Your task to perform on an android device: uninstall "Pinterest" Image 0: 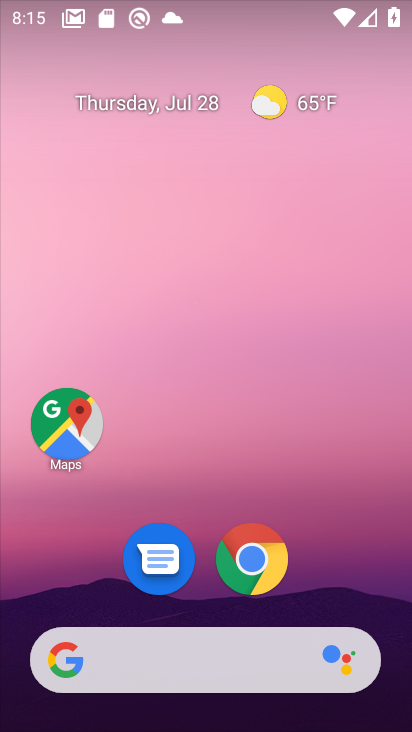
Step 0: drag from (209, 595) to (181, 4)
Your task to perform on an android device: uninstall "Pinterest" Image 1: 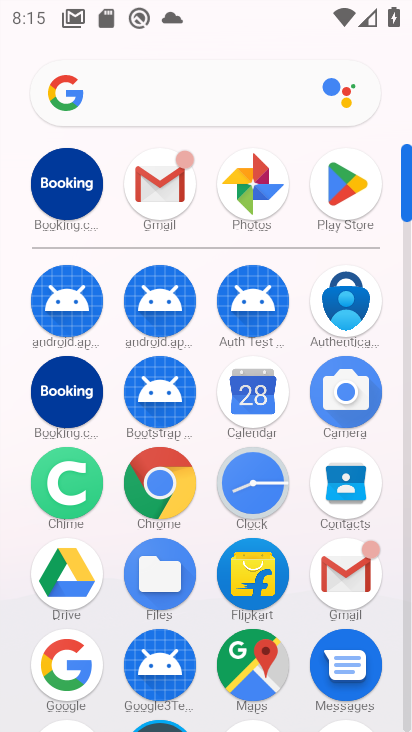
Step 1: click (363, 202)
Your task to perform on an android device: uninstall "Pinterest" Image 2: 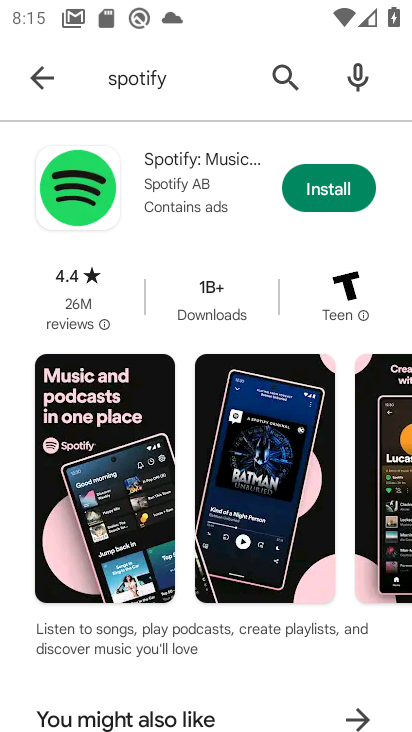
Step 2: click (151, 98)
Your task to perform on an android device: uninstall "Pinterest" Image 3: 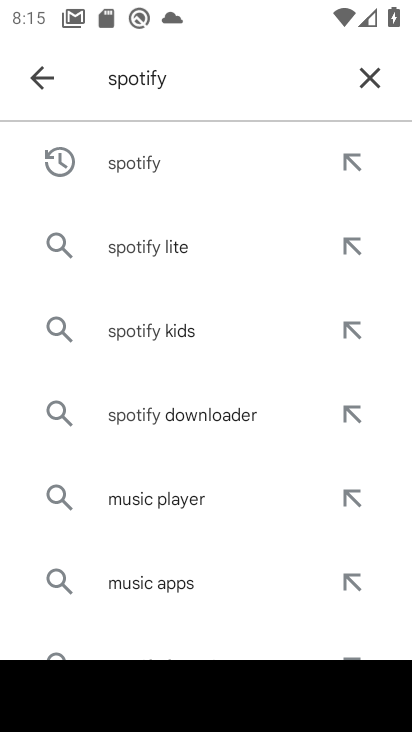
Step 3: click (378, 77)
Your task to perform on an android device: uninstall "Pinterest" Image 4: 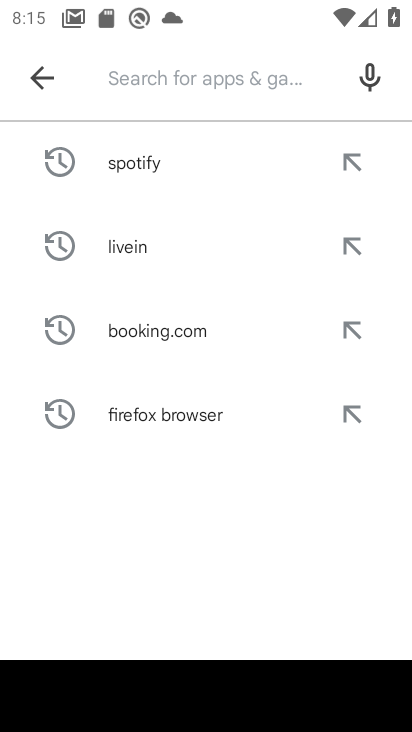
Step 4: type "Pinterest"
Your task to perform on an android device: uninstall "Pinterest" Image 5: 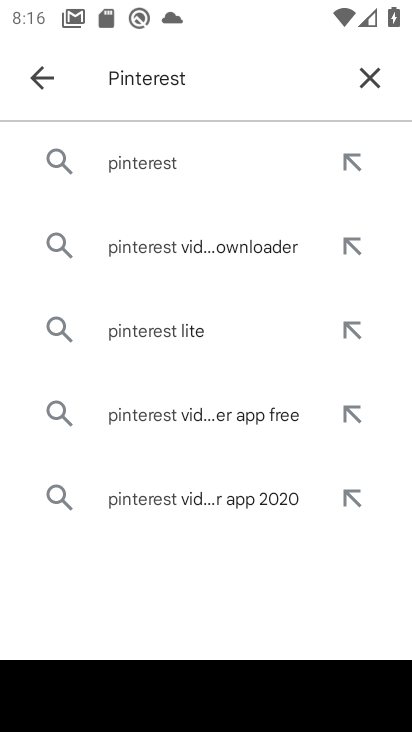
Step 5: click (181, 157)
Your task to perform on an android device: uninstall "Pinterest" Image 6: 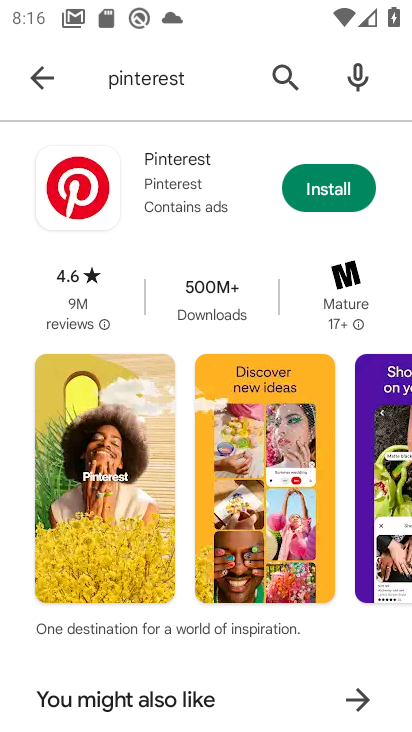
Step 6: task complete